Your task to perform on an android device: add a contact in the contacts app Image 0: 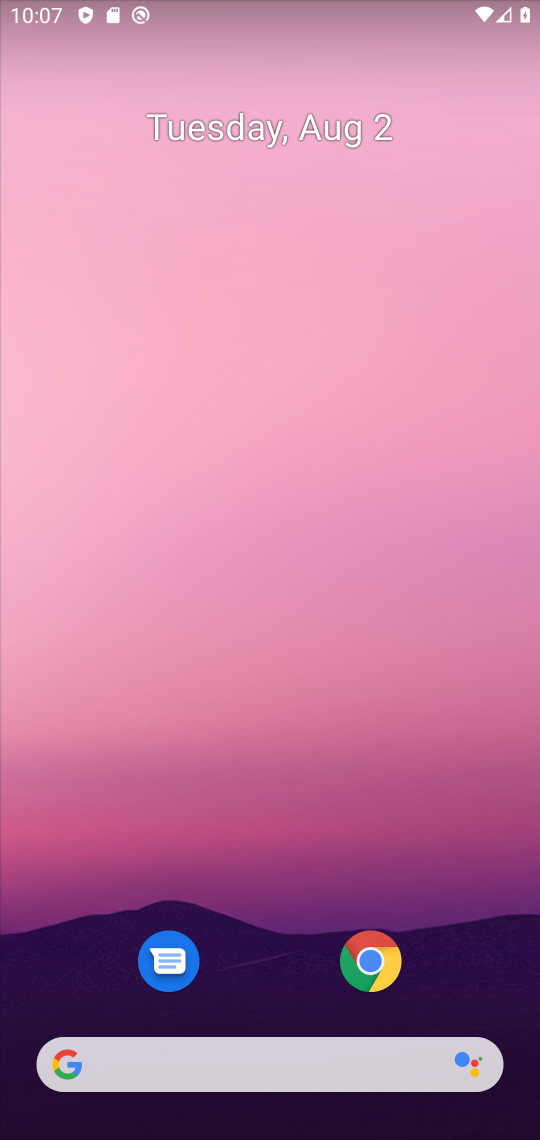
Step 0: drag from (287, 1004) to (290, 116)
Your task to perform on an android device: add a contact in the contacts app Image 1: 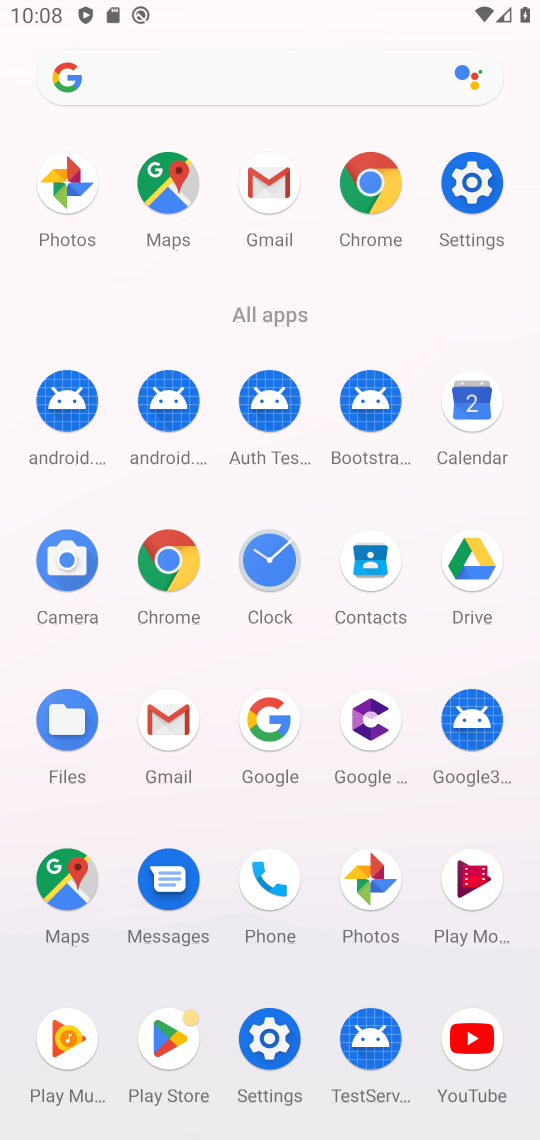
Step 1: click (369, 550)
Your task to perform on an android device: add a contact in the contacts app Image 2: 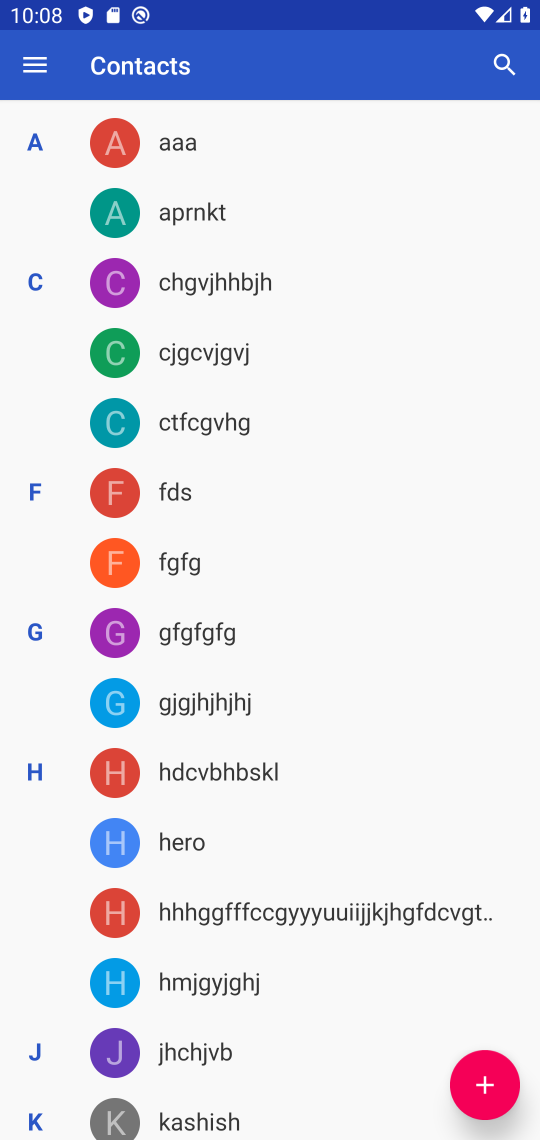
Step 2: click (480, 1082)
Your task to perform on an android device: add a contact in the contacts app Image 3: 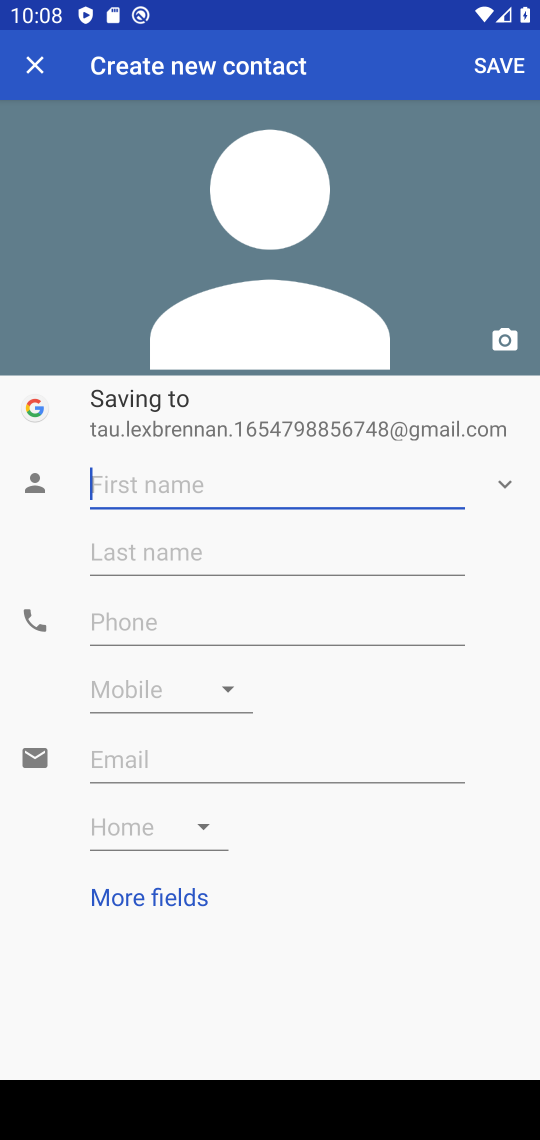
Step 3: type "hggdytu"
Your task to perform on an android device: add a contact in the contacts app Image 4: 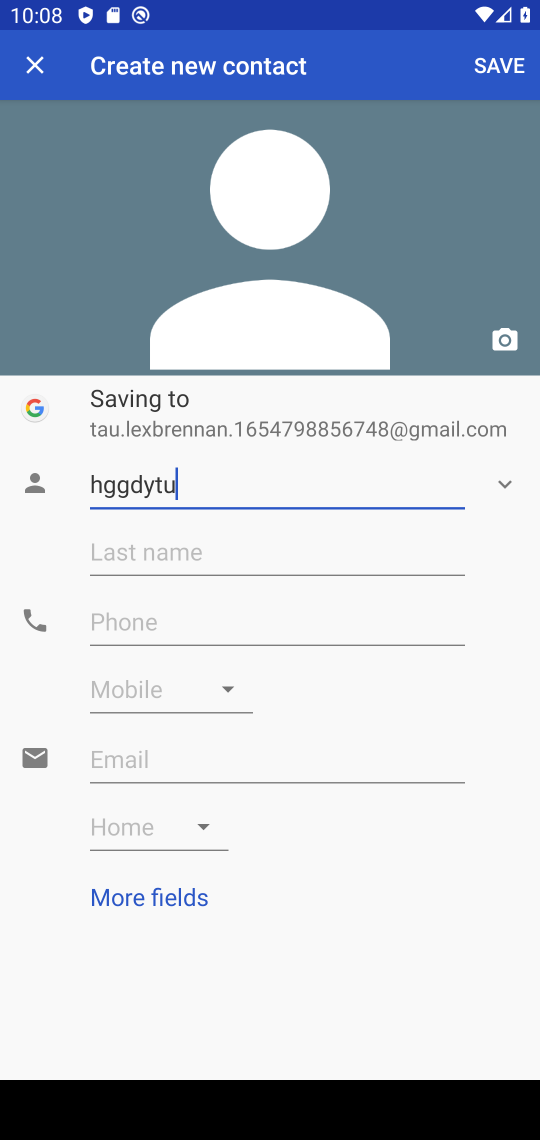
Step 4: click (499, 64)
Your task to perform on an android device: add a contact in the contacts app Image 5: 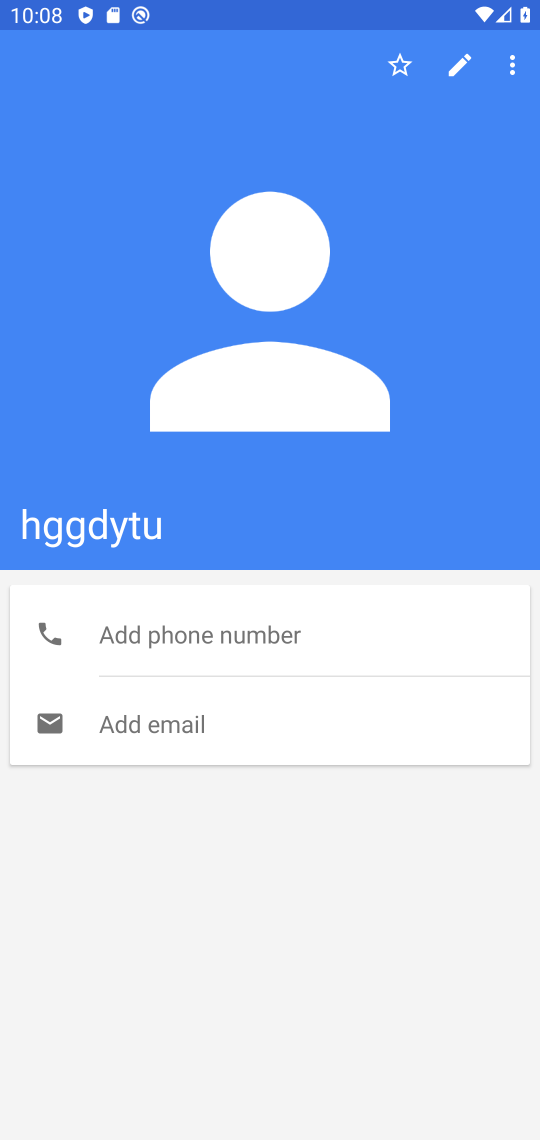
Step 5: task complete